Your task to perform on an android device: see creations saved in the google photos Image 0: 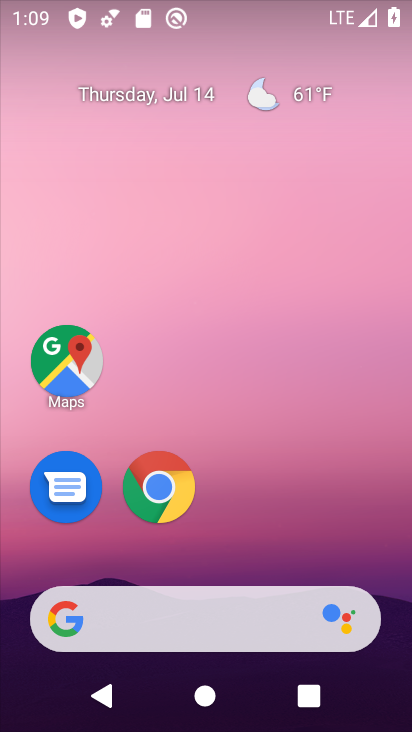
Step 0: drag from (357, 538) to (368, 138)
Your task to perform on an android device: see creations saved in the google photos Image 1: 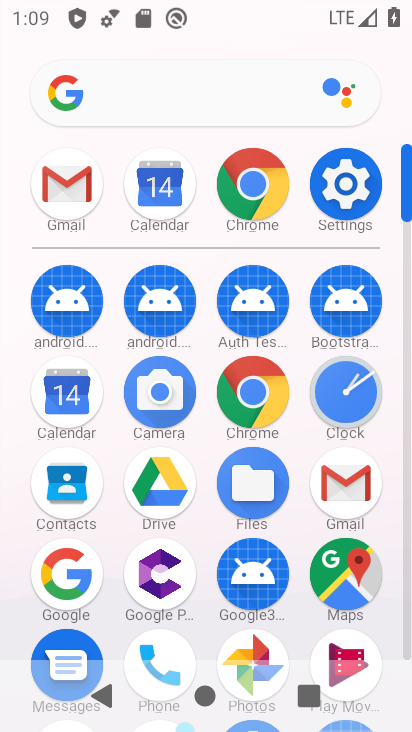
Step 1: drag from (291, 441) to (299, 200)
Your task to perform on an android device: see creations saved in the google photos Image 2: 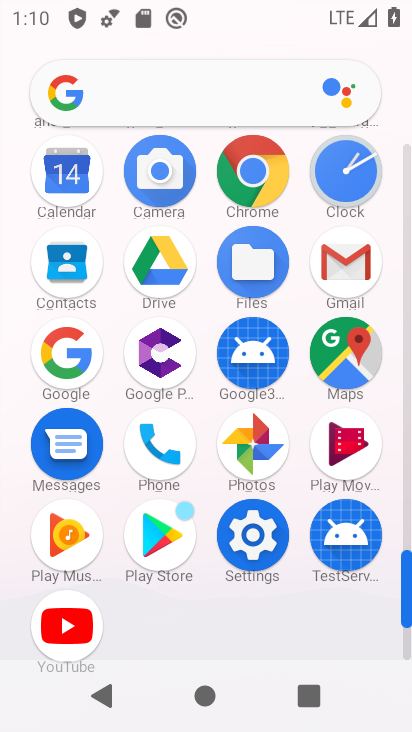
Step 2: click (255, 451)
Your task to perform on an android device: see creations saved in the google photos Image 3: 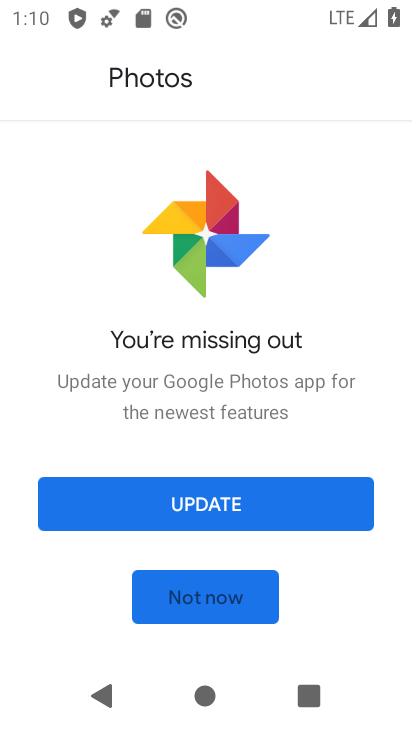
Step 3: click (209, 501)
Your task to perform on an android device: see creations saved in the google photos Image 4: 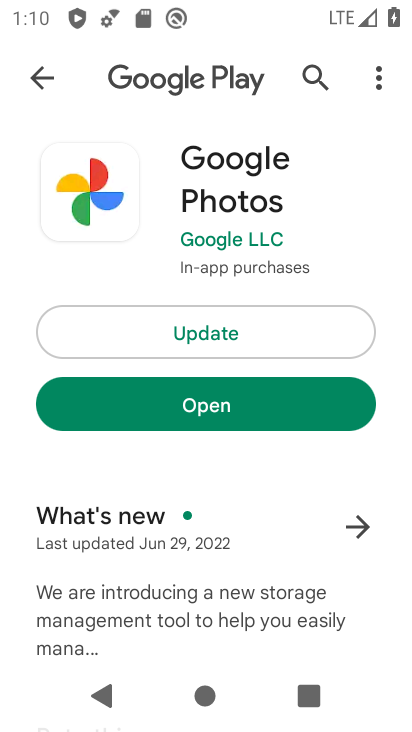
Step 4: click (327, 336)
Your task to perform on an android device: see creations saved in the google photos Image 5: 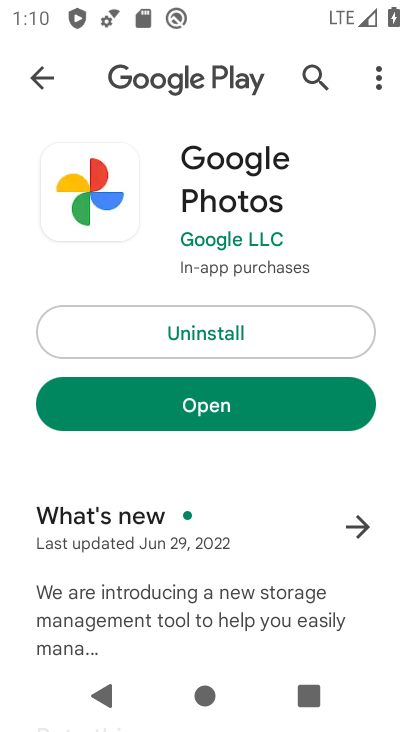
Step 5: click (340, 407)
Your task to perform on an android device: see creations saved in the google photos Image 6: 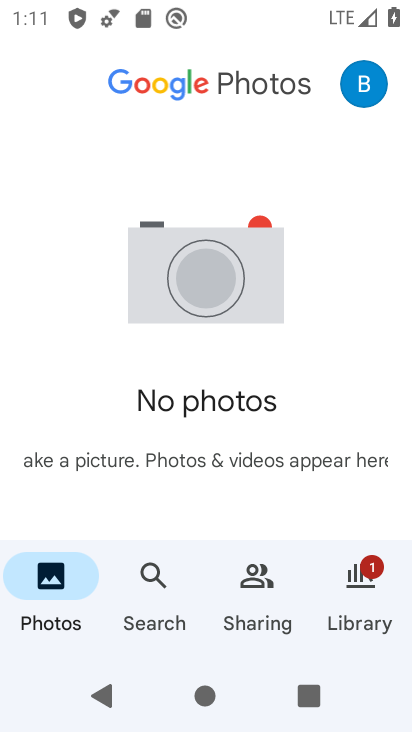
Step 6: click (152, 581)
Your task to perform on an android device: see creations saved in the google photos Image 7: 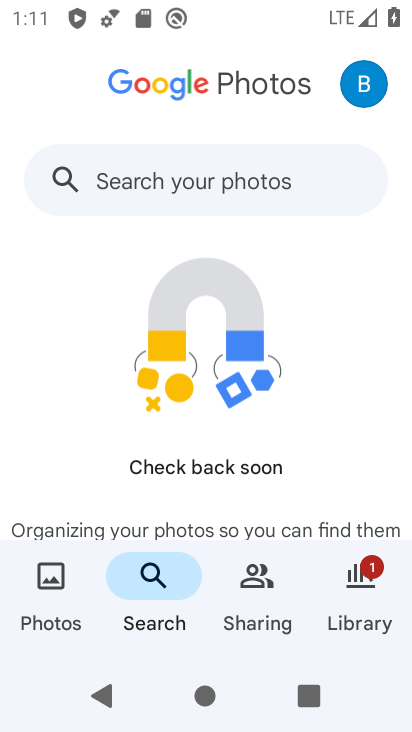
Step 7: drag from (333, 433) to (323, 294)
Your task to perform on an android device: see creations saved in the google photos Image 8: 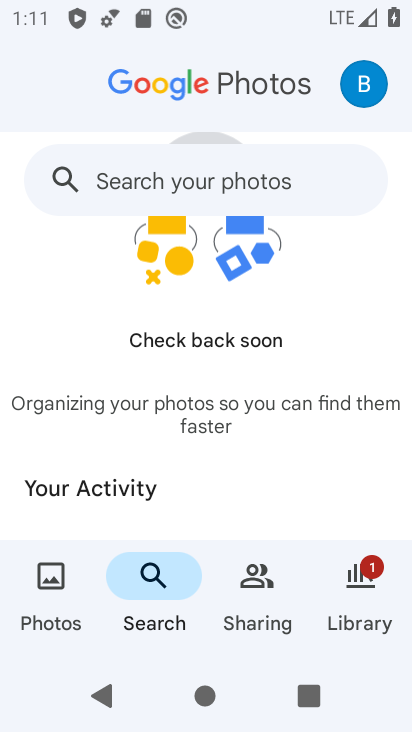
Step 8: drag from (306, 476) to (316, 311)
Your task to perform on an android device: see creations saved in the google photos Image 9: 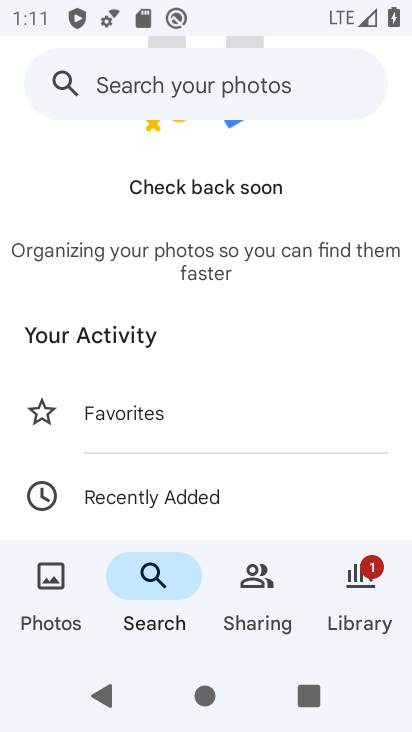
Step 9: drag from (303, 397) to (301, 248)
Your task to perform on an android device: see creations saved in the google photos Image 10: 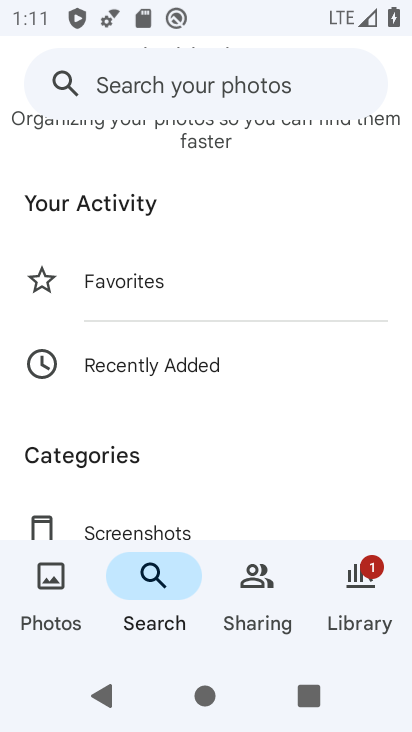
Step 10: drag from (284, 428) to (281, 245)
Your task to perform on an android device: see creations saved in the google photos Image 11: 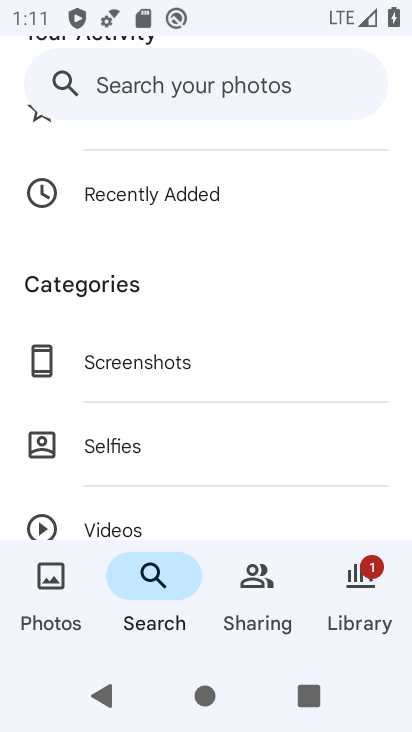
Step 11: drag from (265, 460) to (263, 284)
Your task to perform on an android device: see creations saved in the google photos Image 12: 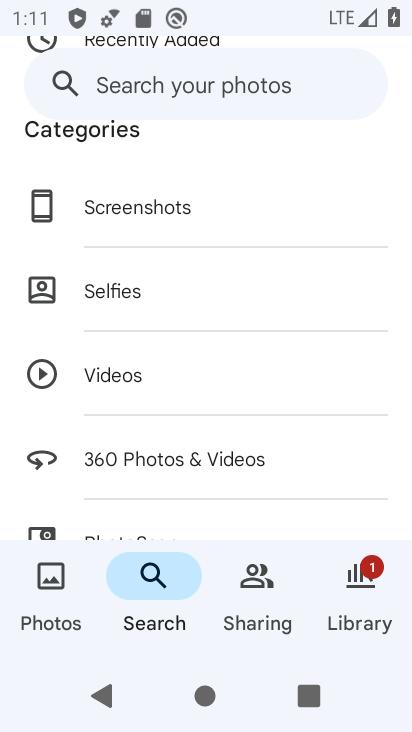
Step 12: drag from (282, 479) to (288, 311)
Your task to perform on an android device: see creations saved in the google photos Image 13: 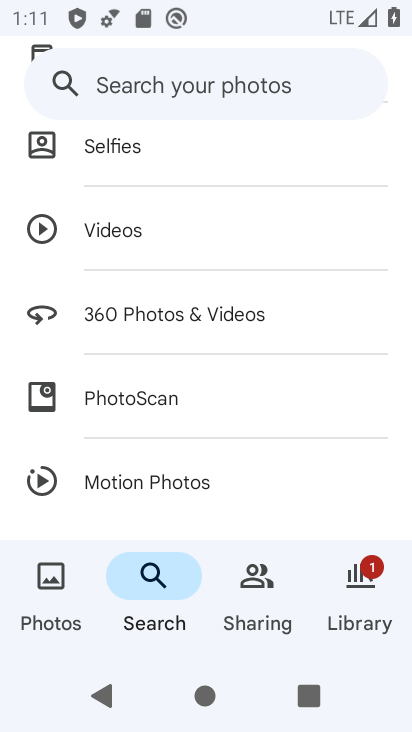
Step 13: drag from (271, 491) to (287, 292)
Your task to perform on an android device: see creations saved in the google photos Image 14: 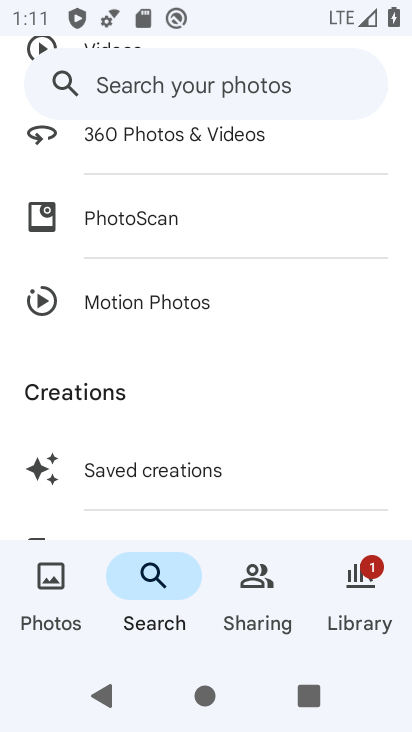
Step 14: drag from (246, 491) to (245, 334)
Your task to perform on an android device: see creations saved in the google photos Image 15: 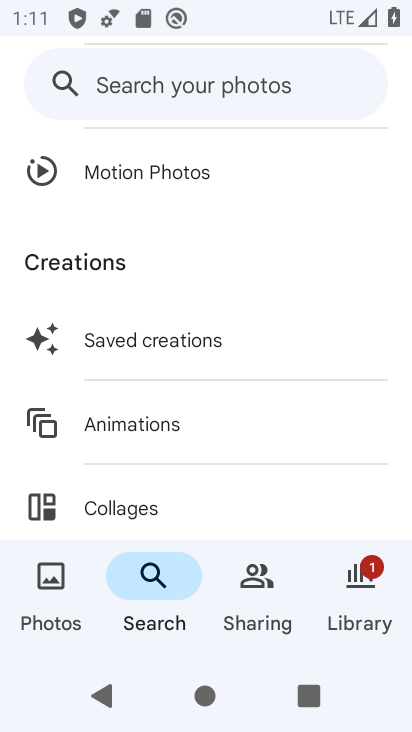
Step 15: click (222, 344)
Your task to perform on an android device: see creations saved in the google photos Image 16: 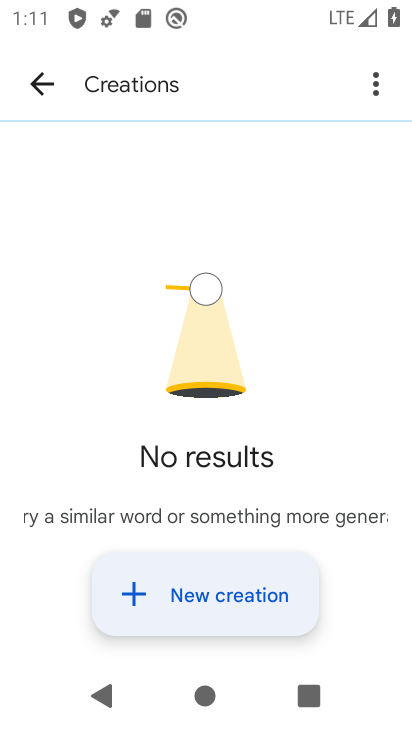
Step 16: task complete